Your task to perform on an android device: Open Google Image 0: 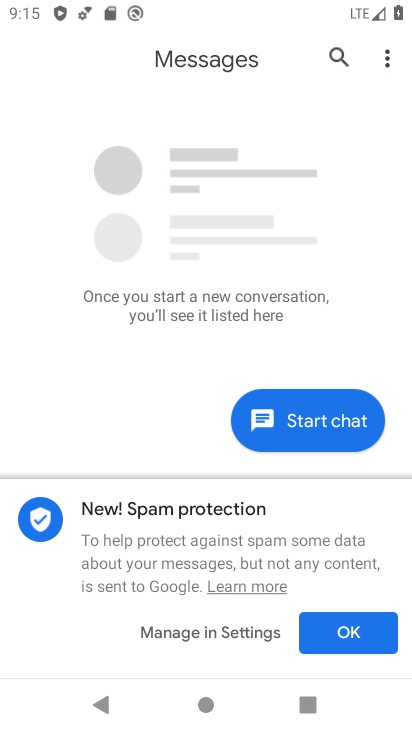
Step 0: press home button
Your task to perform on an android device: Open Google Image 1: 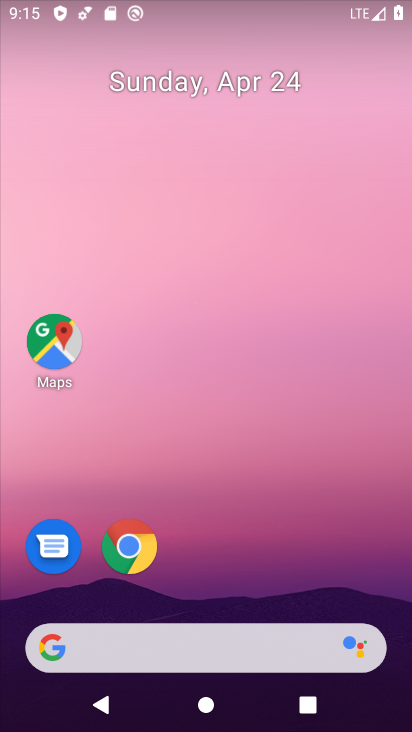
Step 1: drag from (296, 581) to (335, 161)
Your task to perform on an android device: Open Google Image 2: 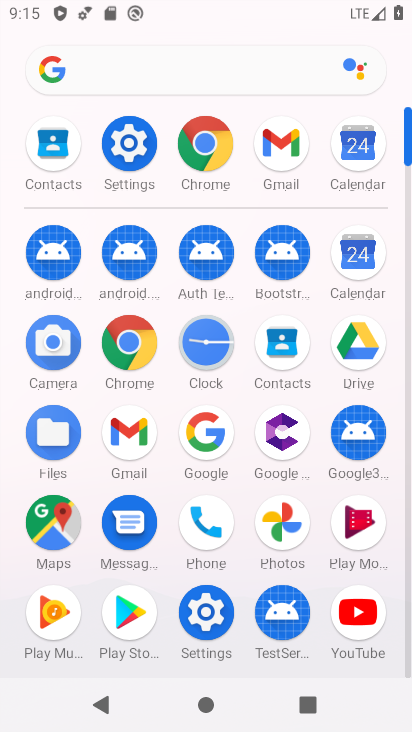
Step 2: click (220, 153)
Your task to perform on an android device: Open Google Image 3: 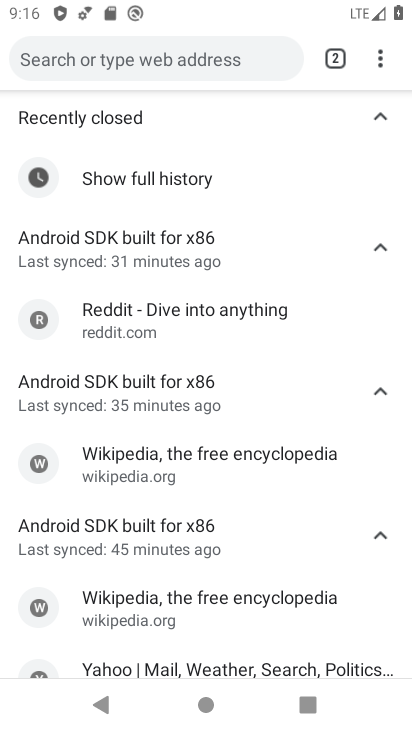
Step 3: click (205, 69)
Your task to perform on an android device: Open Google Image 4: 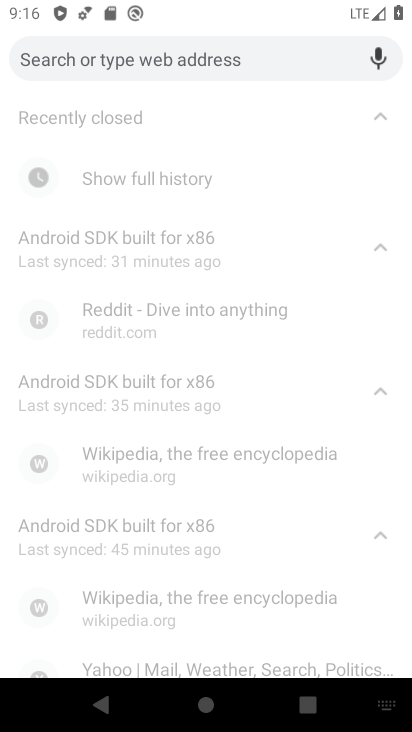
Step 4: type "google.com"
Your task to perform on an android device: Open Google Image 5: 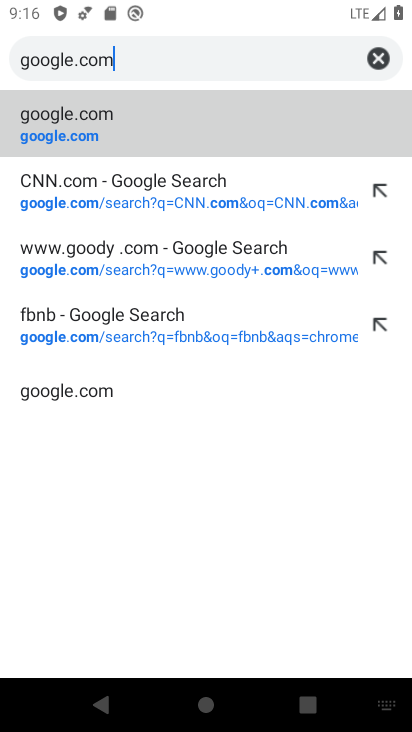
Step 5: click (170, 119)
Your task to perform on an android device: Open Google Image 6: 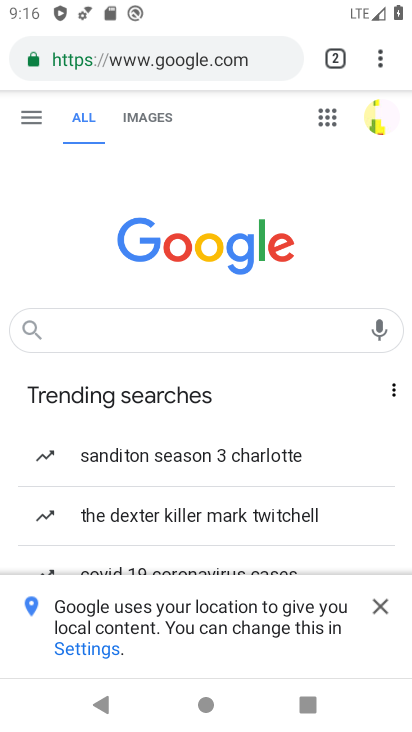
Step 6: task complete